Your task to perform on an android device: Open CNN.com Image 0: 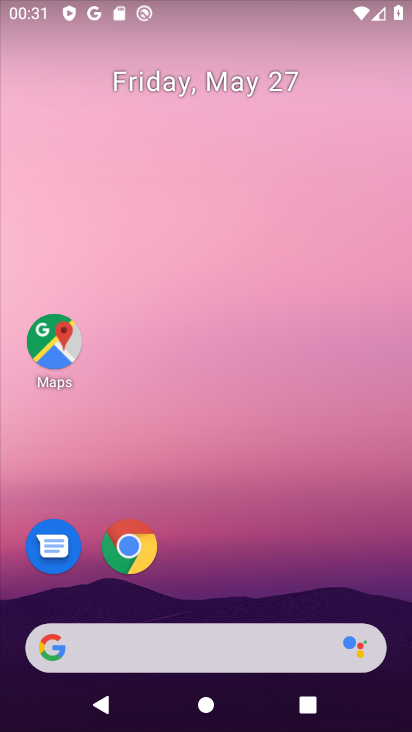
Step 0: drag from (286, 516) to (269, 84)
Your task to perform on an android device: Open CNN.com Image 1: 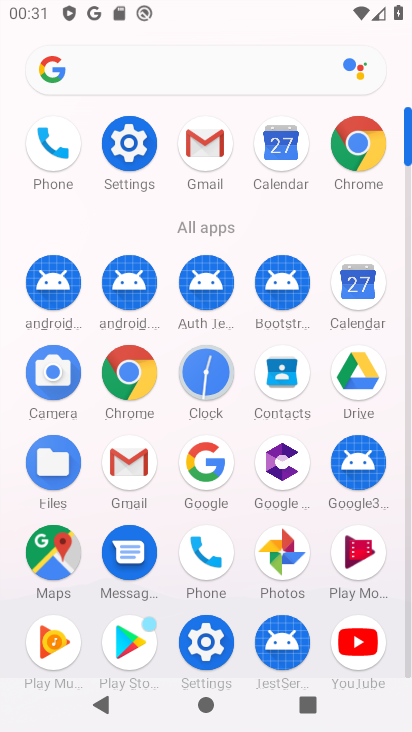
Step 1: click (120, 377)
Your task to perform on an android device: Open CNN.com Image 2: 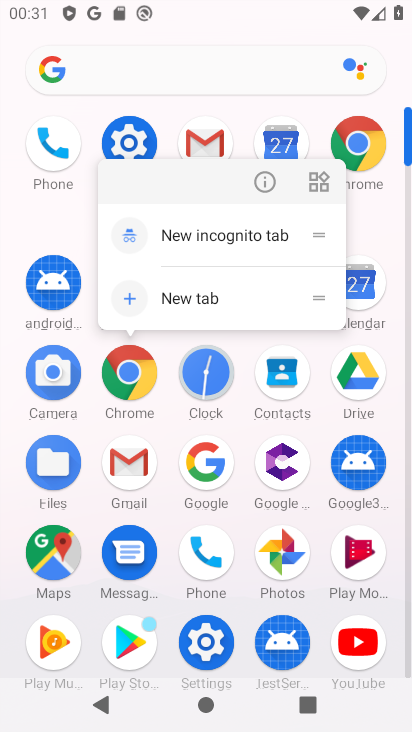
Step 2: click (143, 379)
Your task to perform on an android device: Open CNN.com Image 3: 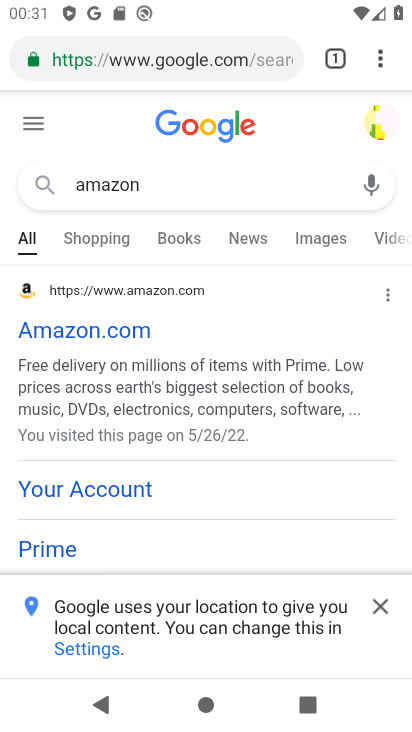
Step 3: click (198, 189)
Your task to perform on an android device: Open CNN.com Image 4: 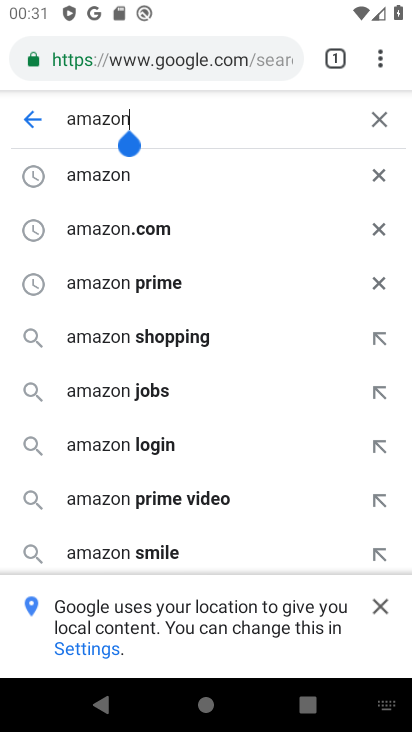
Step 4: click (232, 55)
Your task to perform on an android device: Open CNN.com Image 5: 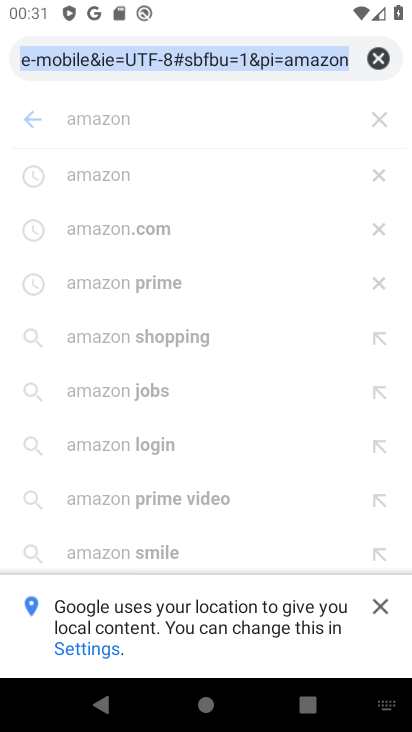
Step 5: click (382, 61)
Your task to perform on an android device: Open CNN.com Image 6: 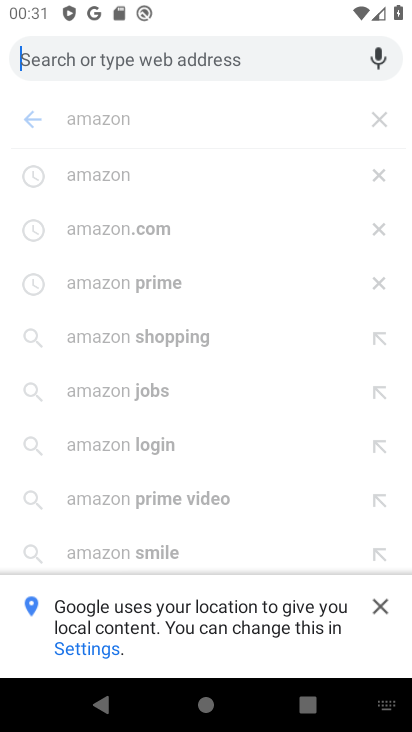
Step 6: type "cnn.com"
Your task to perform on an android device: Open CNN.com Image 7: 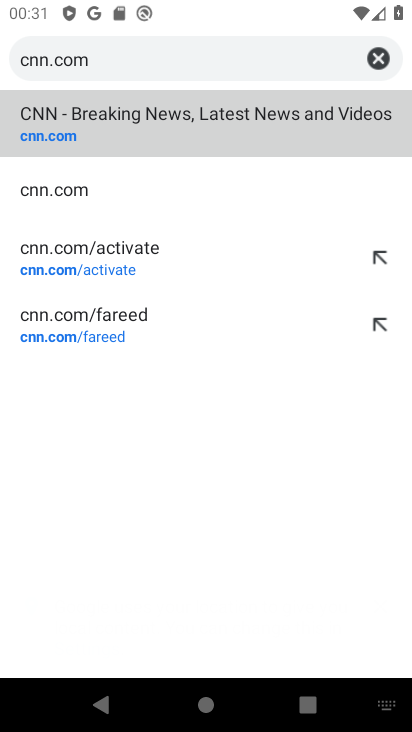
Step 7: click (124, 146)
Your task to perform on an android device: Open CNN.com Image 8: 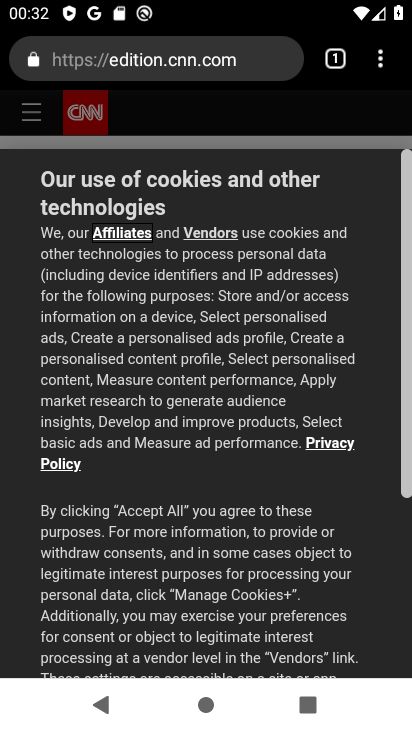
Step 8: task complete